Your task to perform on an android device: check the backup settings in the google photos Image 0: 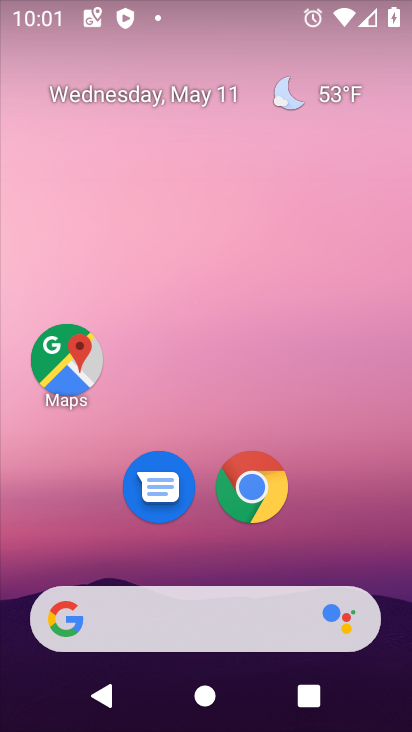
Step 0: drag from (207, 553) to (268, 151)
Your task to perform on an android device: check the backup settings in the google photos Image 1: 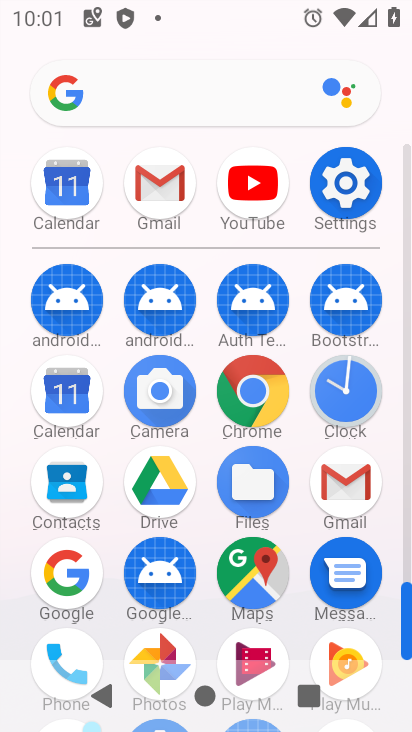
Step 1: drag from (206, 488) to (239, 215)
Your task to perform on an android device: check the backup settings in the google photos Image 2: 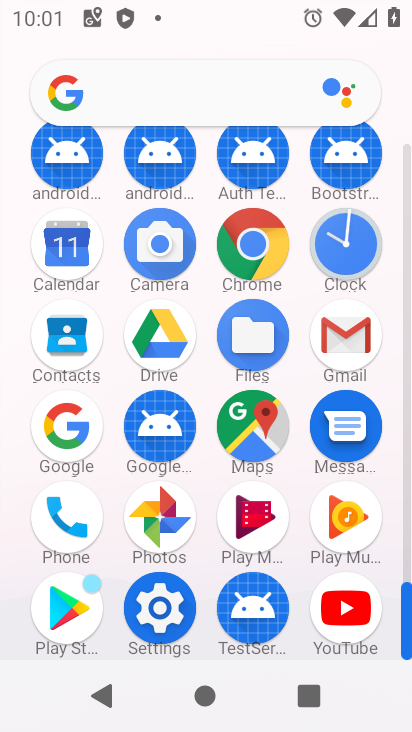
Step 2: click (165, 496)
Your task to perform on an android device: check the backup settings in the google photos Image 3: 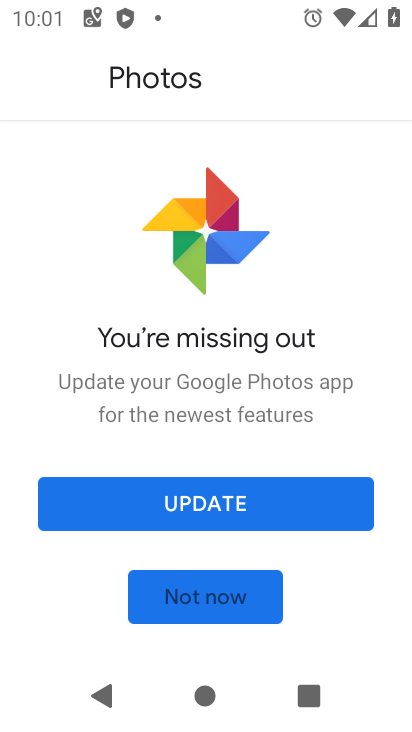
Step 3: click (192, 594)
Your task to perform on an android device: check the backup settings in the google photos Image 4: 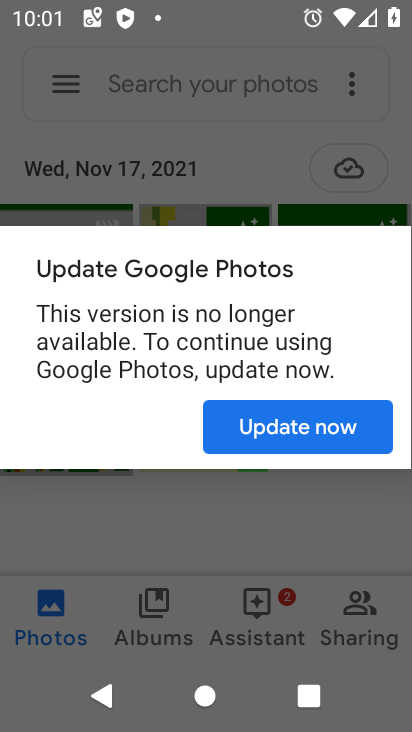
Step 4: click (240, 430)
Your task to perform on an android device: check the backup settings in the google photos Image 5: 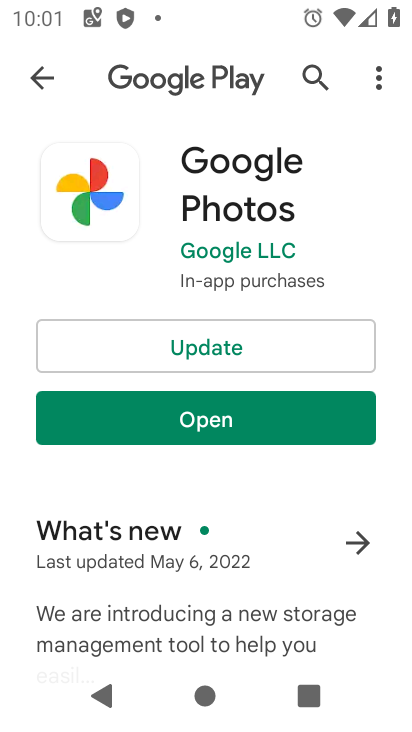
Step 5: click (217, 409)
Your task to perform on an android device: check the backup settings in the google photos Image 6: 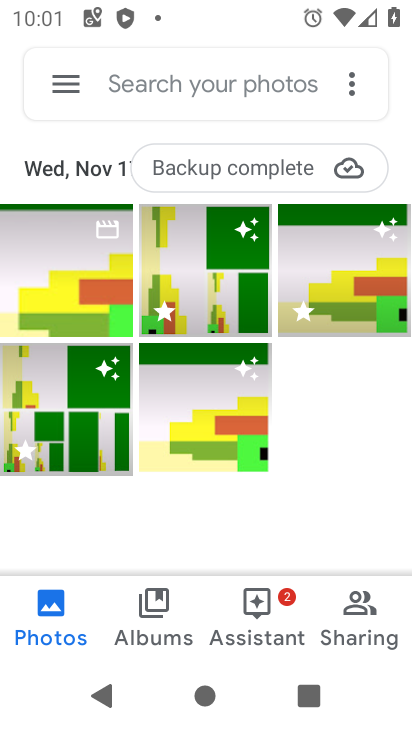
Step 6: click (77, 82)
Your task to perform on an android device: check the backup settings in the google photos Image 7: 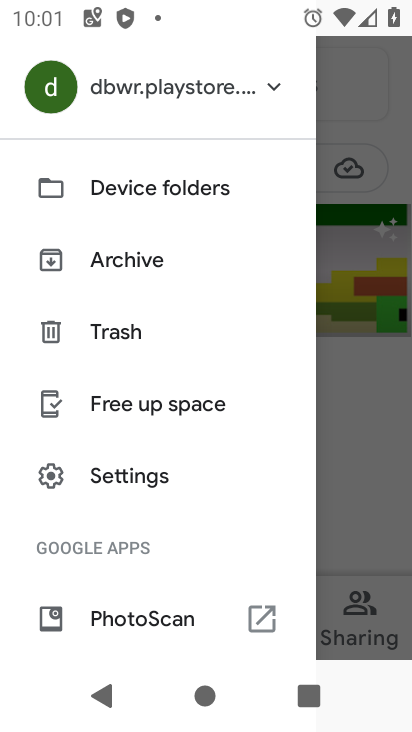
Step 7: drag from (112, 572) to (99, 251)
Your task to perform on an android device: check the backup settings in the google photos Image 8: 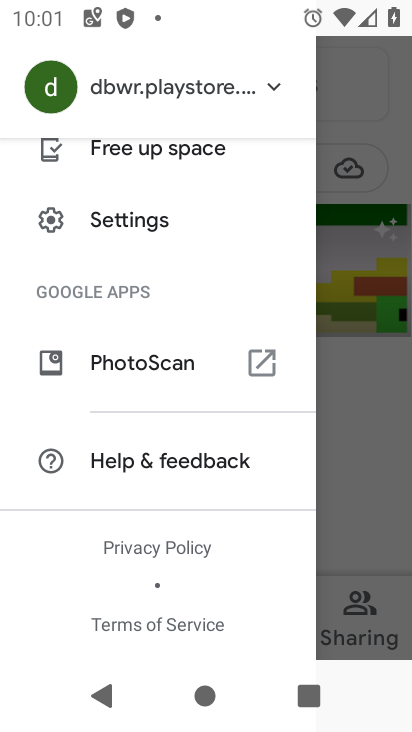
Step 8: click (132, 229)
Your task to perform on an android device: check the backup settings in the google photos Image 9: 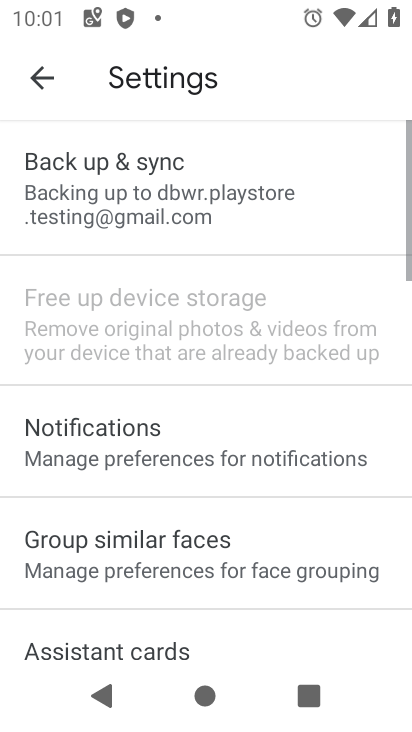
Step 9: click (130, 221)
Your task to perform on an android device: check the backup settings in the google photos Image 10: 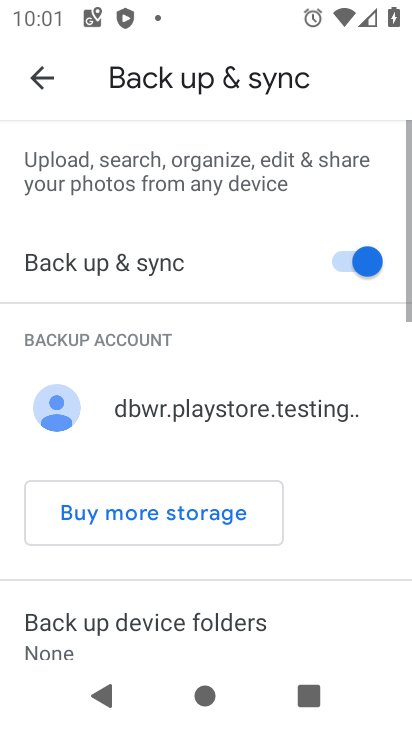
Step 10: task complete